Your task to perform on an android device: add a label to a message in the gmail app Image 0: 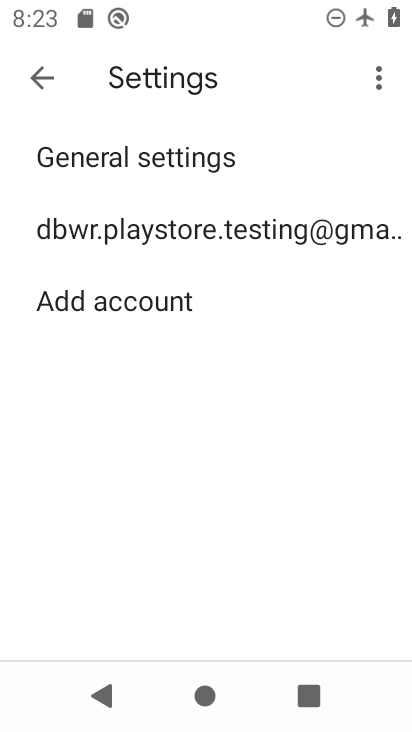
Step 0: press home button
Your task to perform on an android device: add a label to a message in the gmail app Image 1: 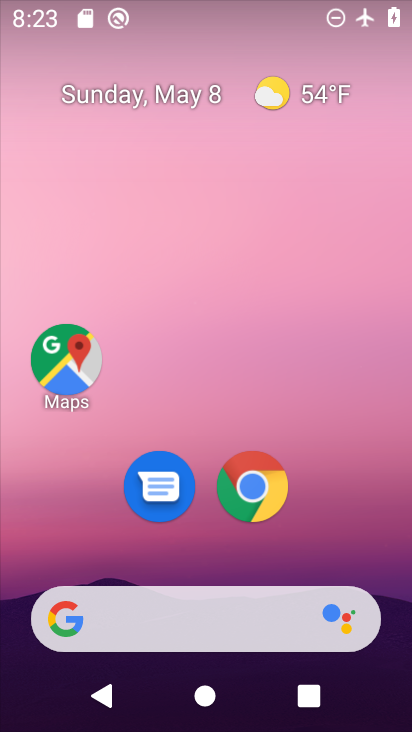
Step 1: drag from (175, 568) to (212, 190)
Your task to perform on an android device: add a label to a message in the gmail app Image 2: 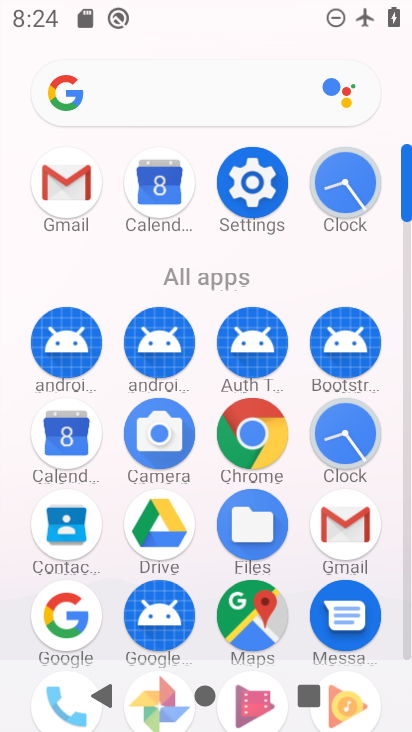
Step 2: click (65, 190)
Your task to perform on an android device: add a label to a message in the gmail app Image 3: 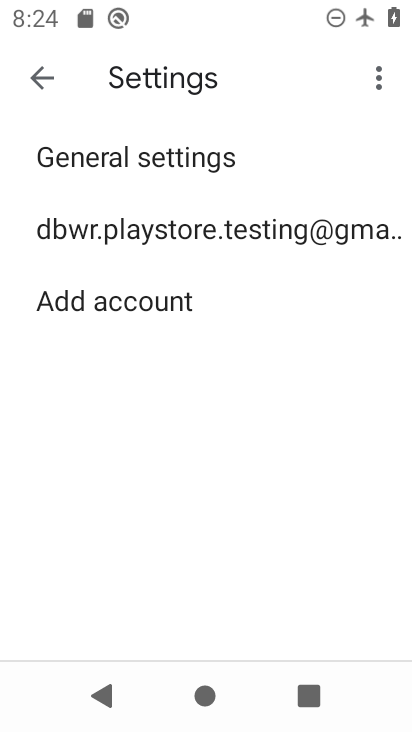
Step 3: click (197, 238)
Your task to perform on an android device: add a label to a message in the gmail app Image 4: 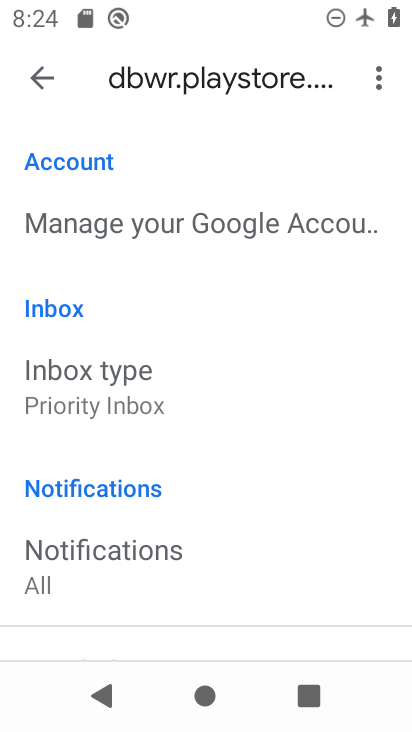
Step 4: click (37, 79)
Your task to perform on an android device: add a label to a message in the gmail app Image 5: 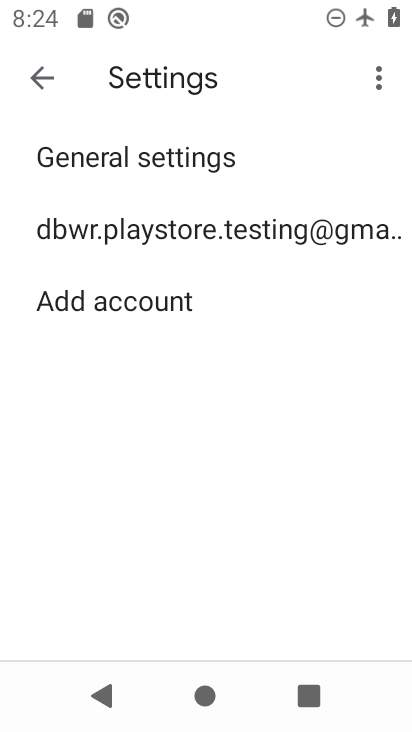
Step 5: click (37, 79)
Your task to perform on an android device: add a label to a message in the gmail app Image 6: 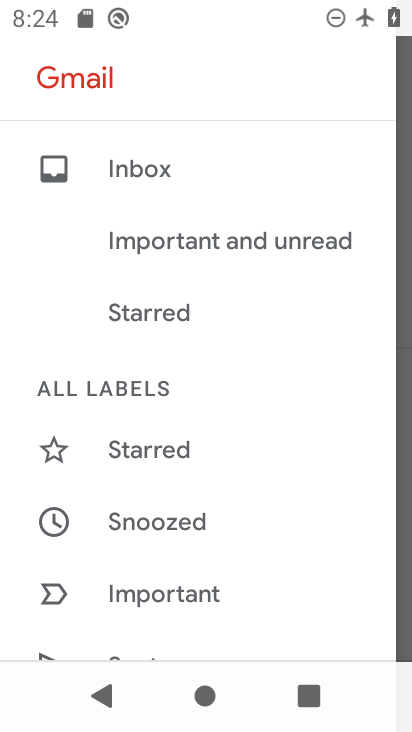
Step 6: click (146, 166)
Your task to perform on an android device: add a label to a message in the gmail app Image 7: 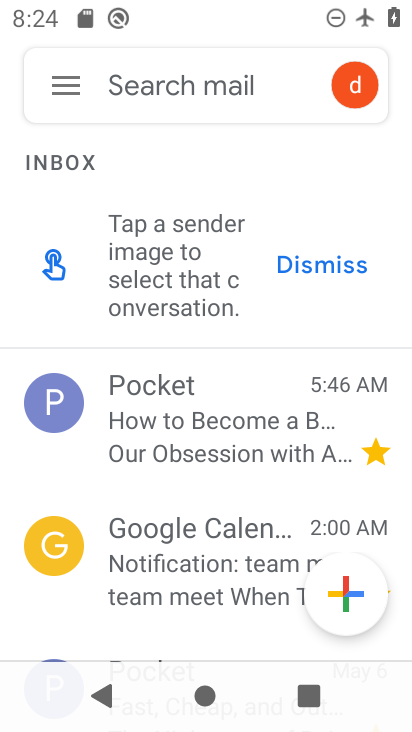
Step 7: click (207, 392)
Your task to perform on an android device: add a label to a message in the gmail app Image 8: 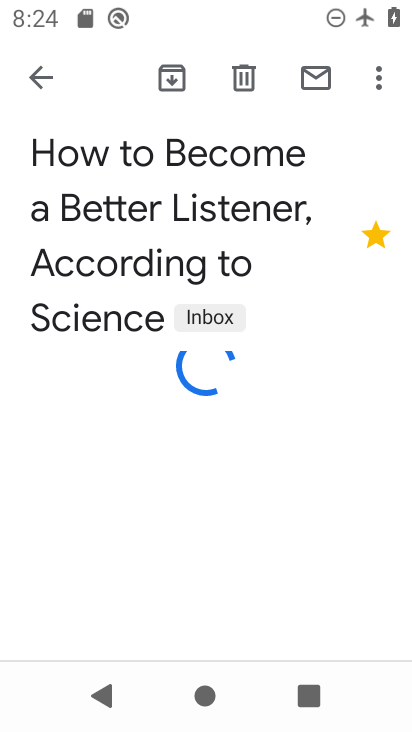
Step 8: click (381, 82)
Your task to perform on an android device: add a label to a message in the gmail app Image 9: 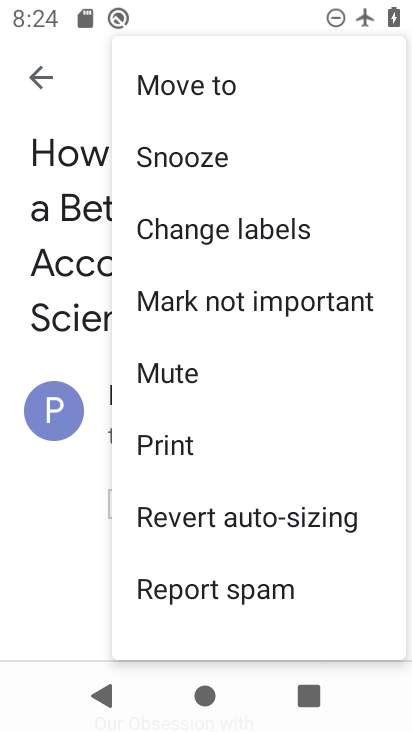
Step 9: click (234, 239)
Your task to perform on an android device: add a label to a message in the gmail app Image 10: 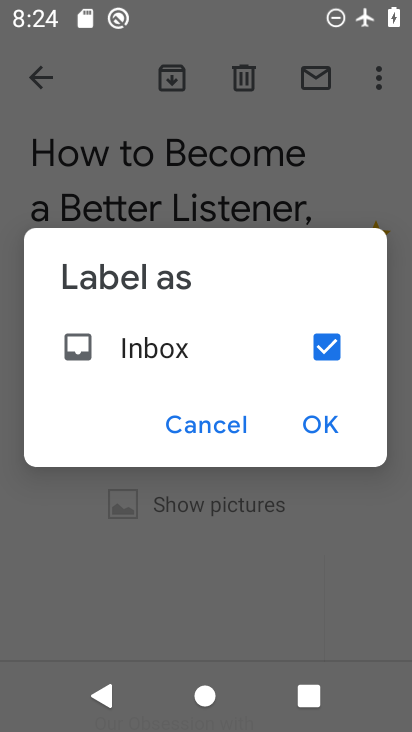
Step 10: click (314, 429)
Your task to perform on an android device: add a label to a message in the gmail app Image 11: 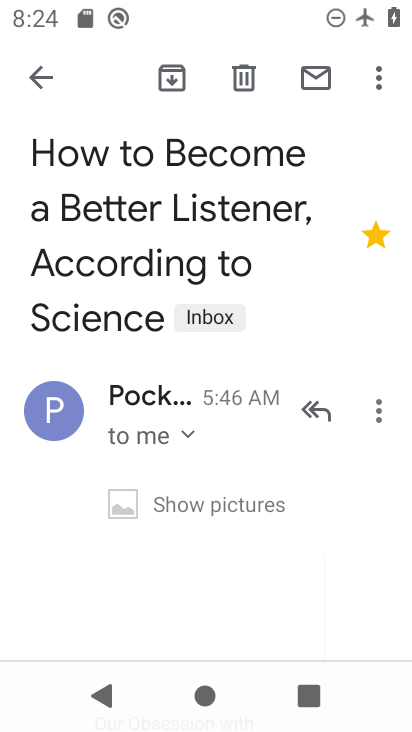
Step 11: task complete